Your task to perform on an android device: Open the calendar app, open the side menu, and click the "Day" option Image 0: 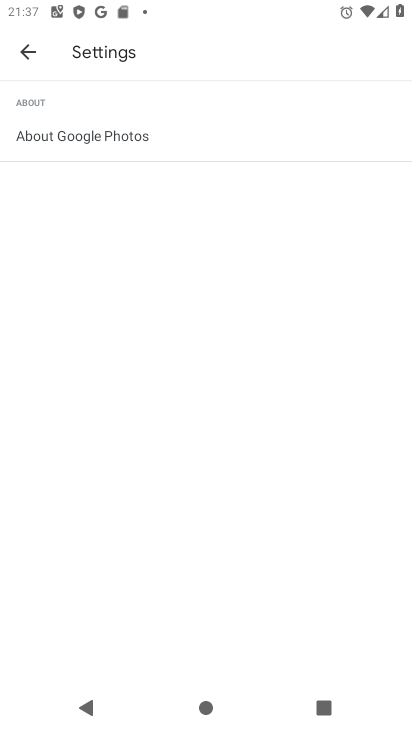
Step 0: press home button
Your task to perform on an android device: Open the calendar app, open the side menu, and click the "Day" option Image 1: 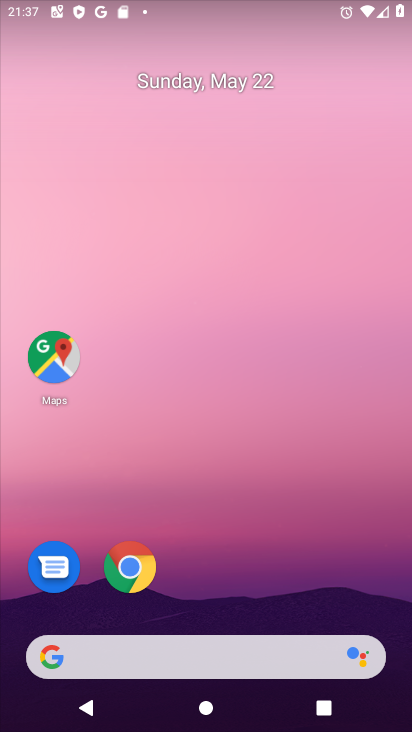
Step 1: drag from (230, 578) to (215, 23)
Your task to perform on an android device: Open the calendar app, open the side menu, and click the "Day" option Image 2: 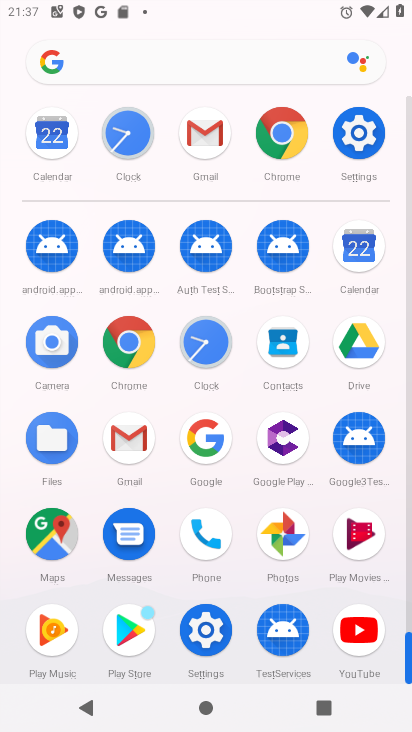
Step 2: click (371, 247)
Your task to perform on an android device: Open the calendar app, open the side menu, and click the "Day" option Image 3: 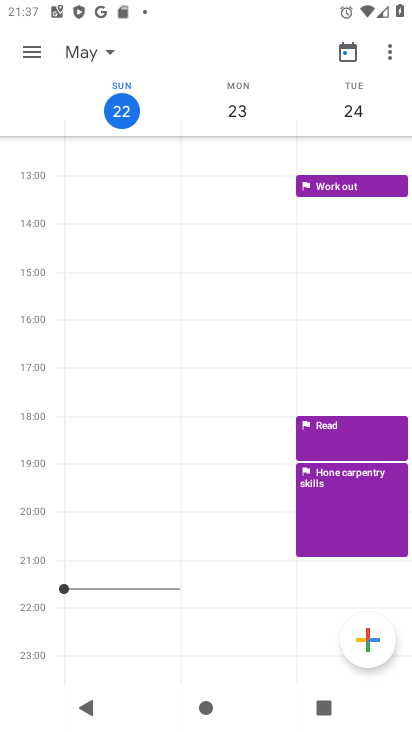
Step 3: click (26, 43)
Your task to perform on an android device: Open the calendar app, open the side menu, and click the "Day" option Image 4: 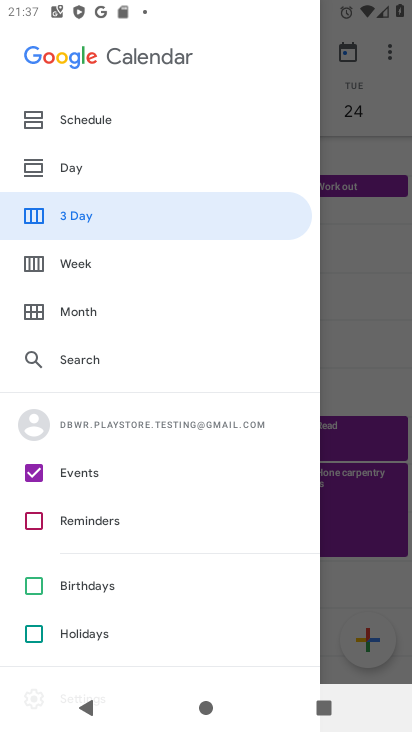
Step 4: click (27, 55)
Your task to perform on an android device: Open the calendar app, open the side menu, and click the "Day" option Image 5: 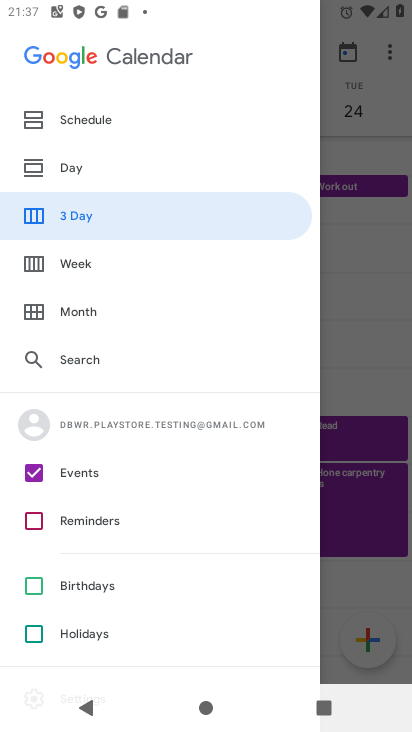
Step 5: click (73, 159)
Your task to perform on an android device: Open the calendar app, open the side menu, and click the "Day" option Image 6: 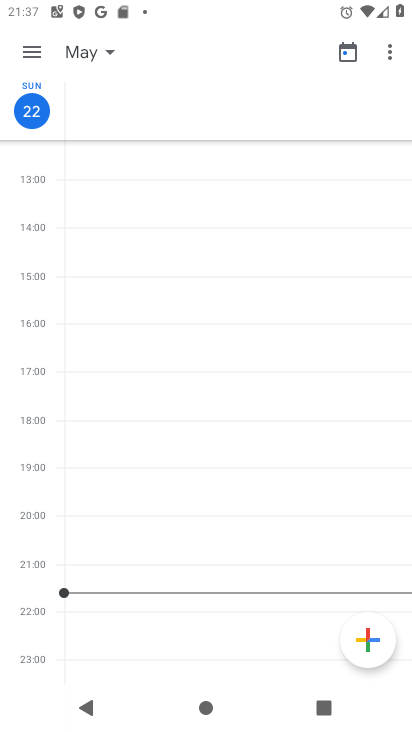
Step 6: task complete